Your task to perform on an android device: change keyboard looks Image 0: 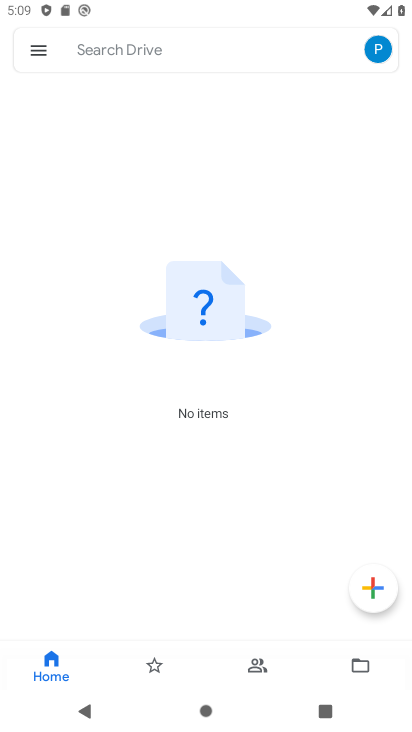
Step 0: press home button
Your task to perform on an android device: change keyboard looks Image 1: 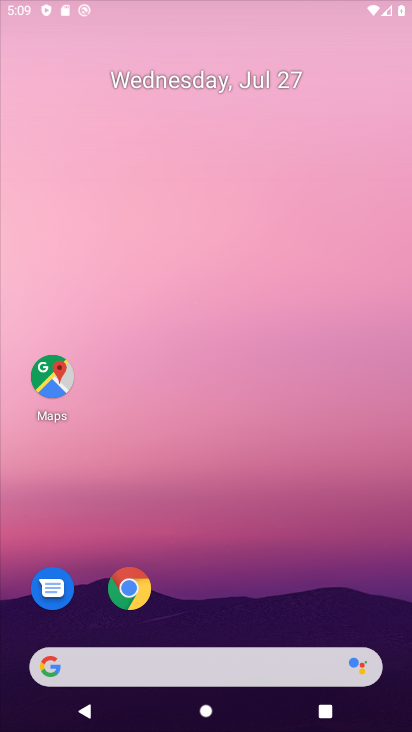
Step 1: drag from (252, 673) to (131, 126)
Your task to perform on an android device: change keyboard looks Image 2: 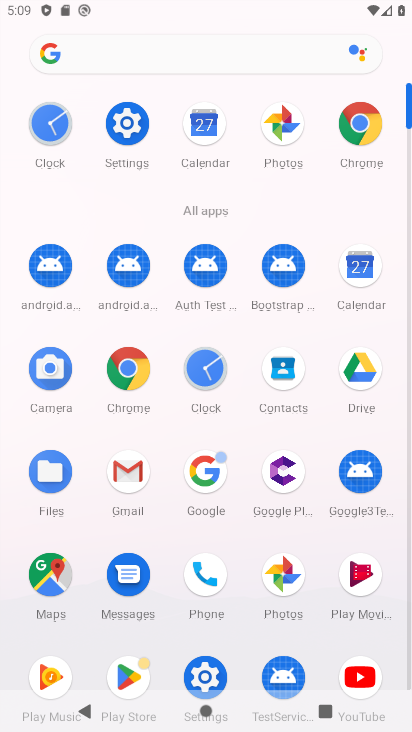
Step 2: click (138, 127)
Your task to perform on an android device: change keyboard looks Image 3: 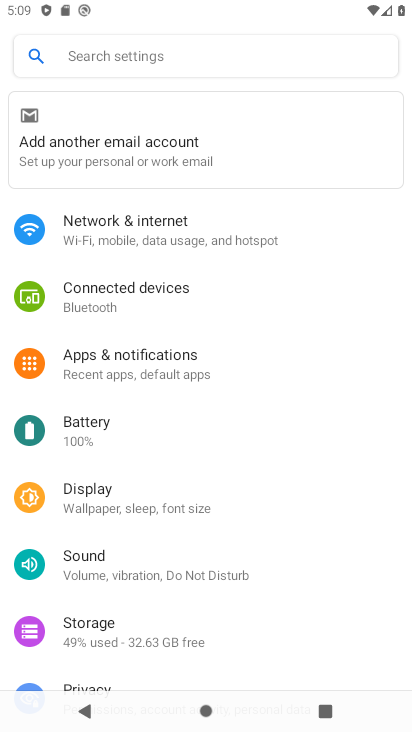
Step 3: drag from (214, 636) to (259, 190)
Your task to perform on an android device: change keyboard looks Image 4: 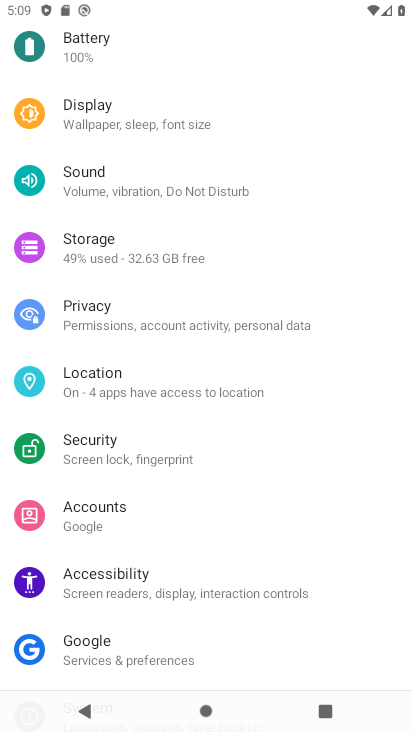
Step 4: drag from (216, 604) to (222, 119)
Your task to perform on an android device: change keyboard looks Image 5: 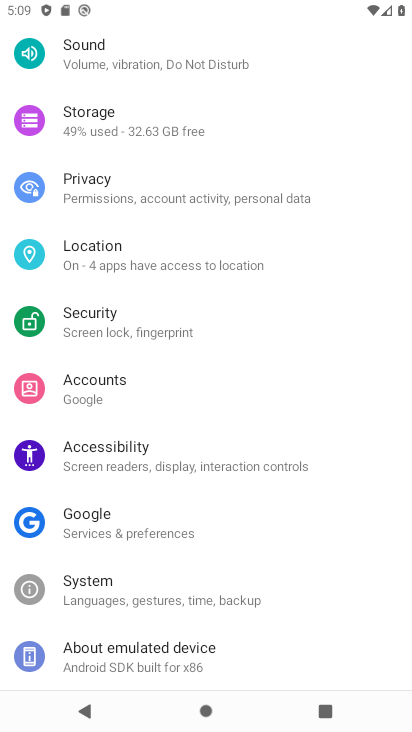
Step 5: click (124, 464)
Your task to perform on an android device: change keyboard looks Image 6: 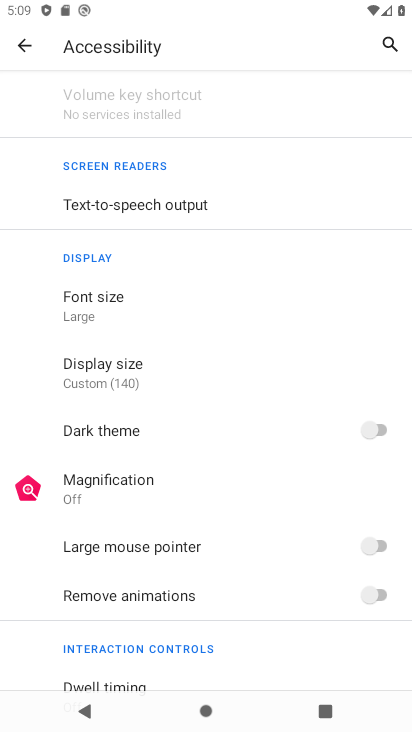
Step 6: press back button
Your task to perform on an android device: change keyboard looks Image 7: 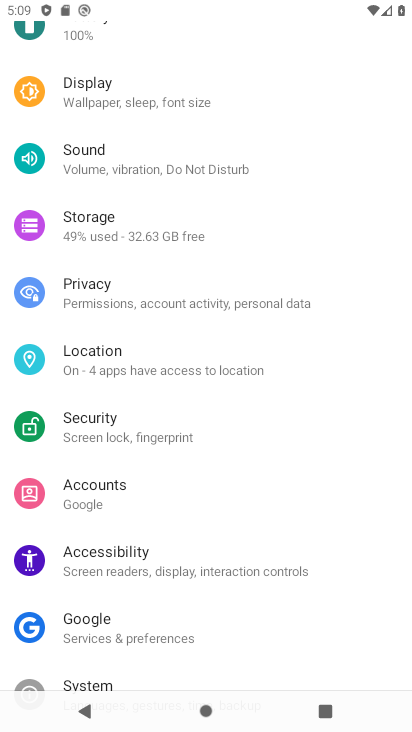
Step 7: drag from (126, 646) to (172, 422)
Your task to perform on an android device: change keyboard looks Image 8: 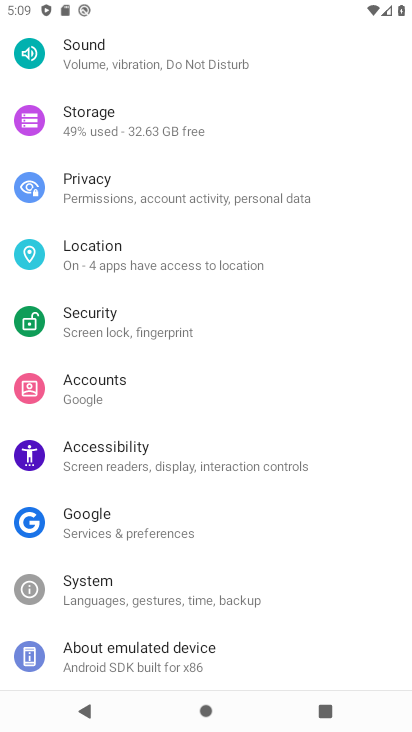
Step 8: click (146, 585)
Your task to perform on an android device: change keyboard looks Image 9: 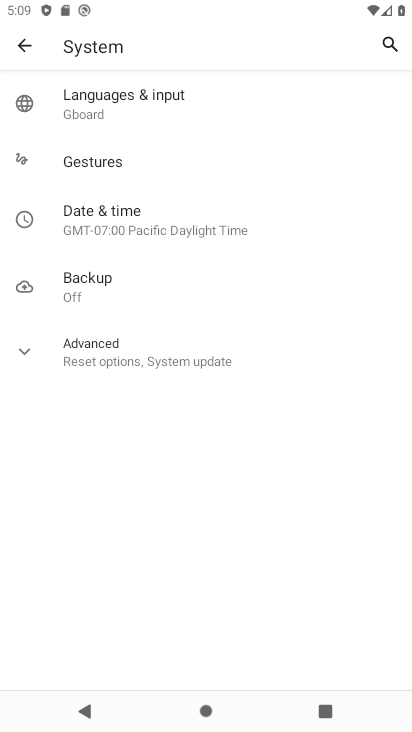
Step 9: click (153, 104)
Your task to perform on an android device: change keyboard looks Image 10: 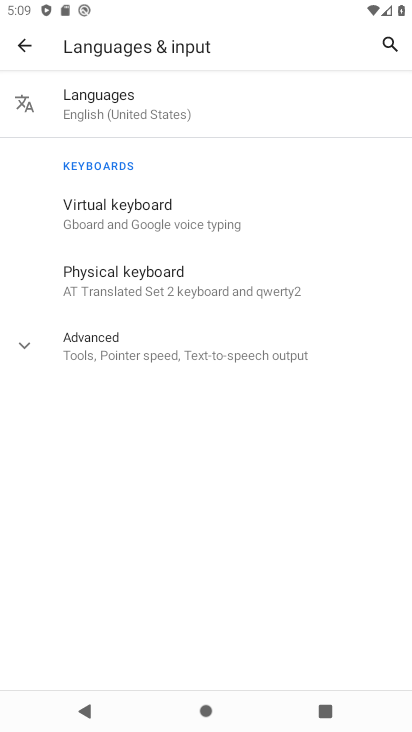
Step 10: click (122, 221)
Your task to perform on an android device: change keyboard looks Image 11: 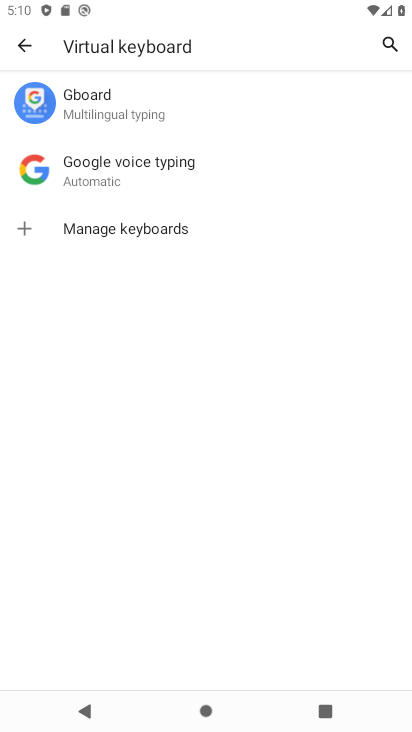
Step 11: click (163, 116)
Your task to perform on an android device: change keyboard looks Image 12: 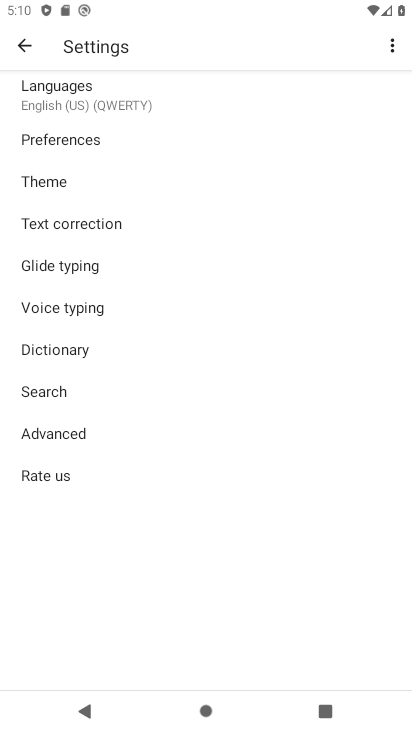
Step 12: click (59, 174)
Your task to perform on an android device: change keyboard looks Image 13: 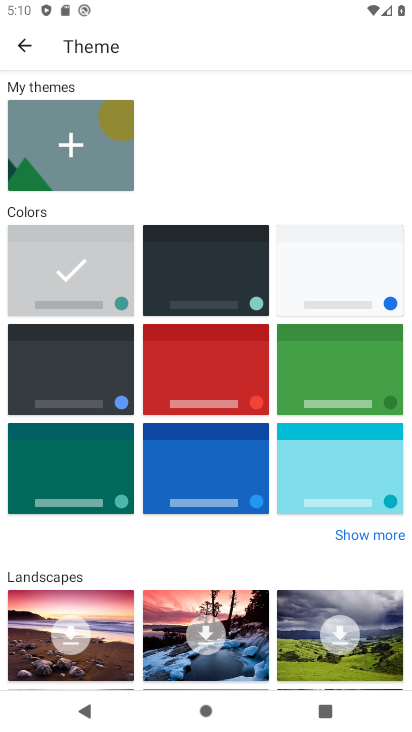
Step 13: click (203, 398)
Your task to perform on an android device: change keyboard looks Image 14: 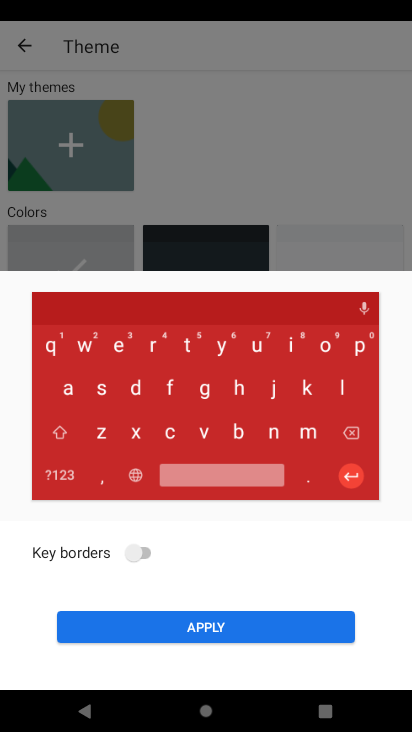
Step 14: click (247, 621)
Your task to perform on an android device: change keyboard looks Image 15: 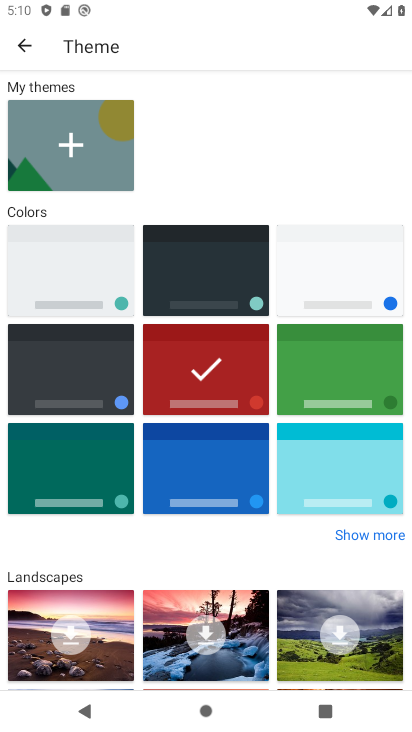
Step 15: task complete